Your task to perform on an android device: Is it going to rain today? Image 0: 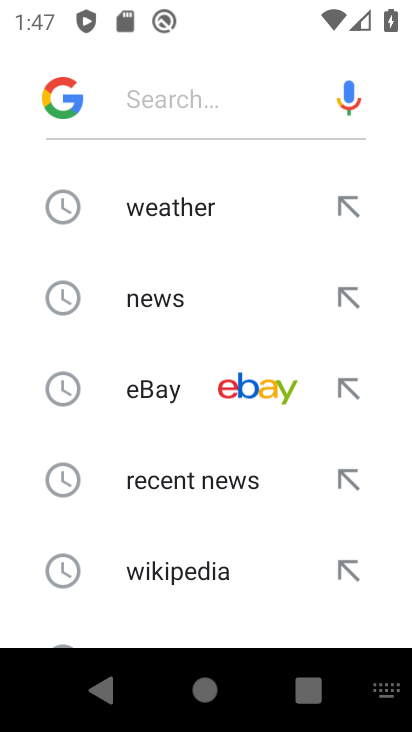
Step 0: press home button
Your task to perform on an android device: Is it going to rain today? Image 1: 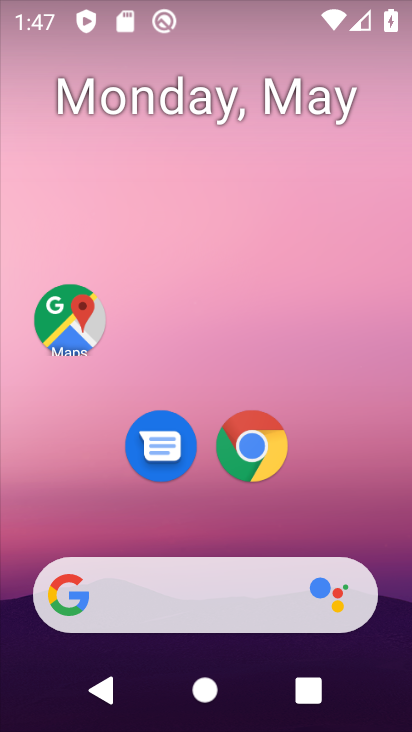
Step 1: click (246, 453)
Your task to perform on an android device: Is it going to rain today? Image 2: 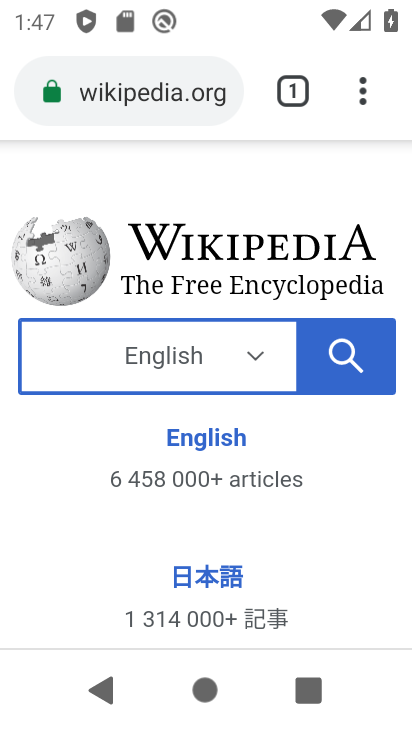
Step 2: click (103, 74)
Your task to perform on an android device: Is it going to rain today? Image 3: 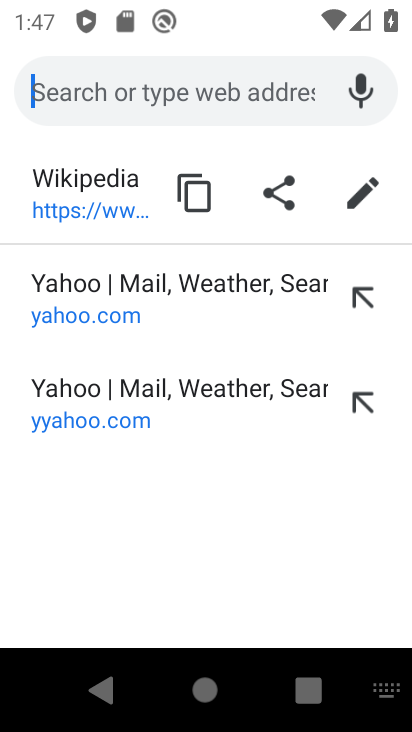
Step 3: type "is it going to rain today"
Your task to perform on an android device: Is it going to rain today? Image 4: 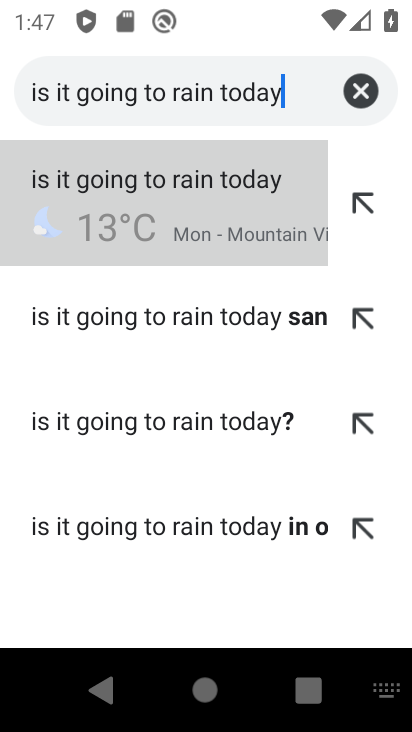
Step 4: click (171, 204)
Your task to perform on an android device: Is it going to rain today? Image 5: 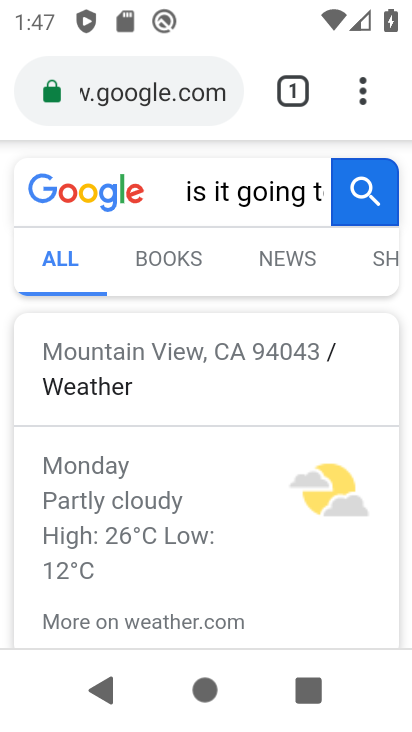
Step 5: task complete